Your task to perform on an android device: open a bookmark in the chrome app Image 0: 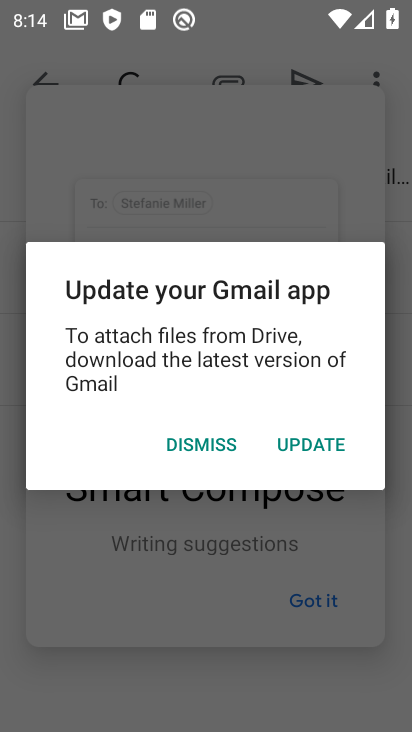
Step 0: press home button
Your task to perform on an android device: open a bookmark in the chrome app Image 1: 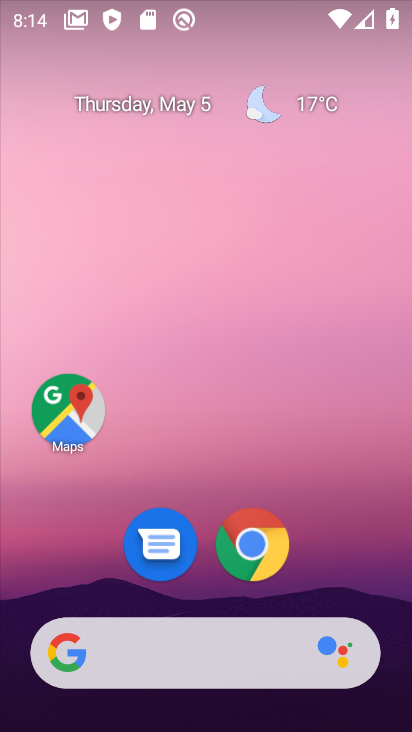
Step 1: click (273, 544)
Your task to perform on an android device: open a bookmark in the chrome app Image 2: 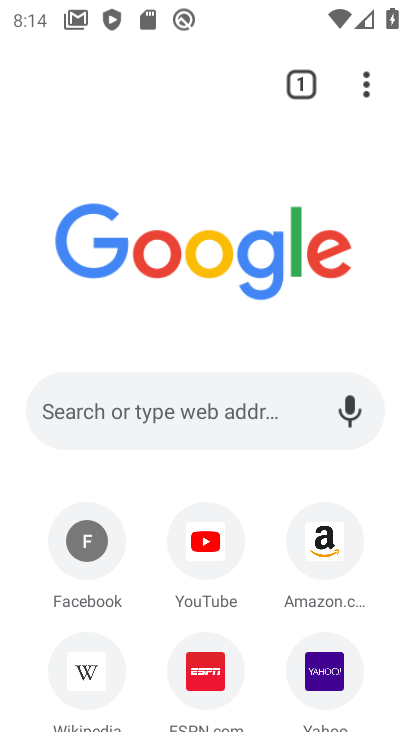
Step 2: click (359, 96)
Your task to perform on an android device: open a bookmark in the chrome app Image 3: 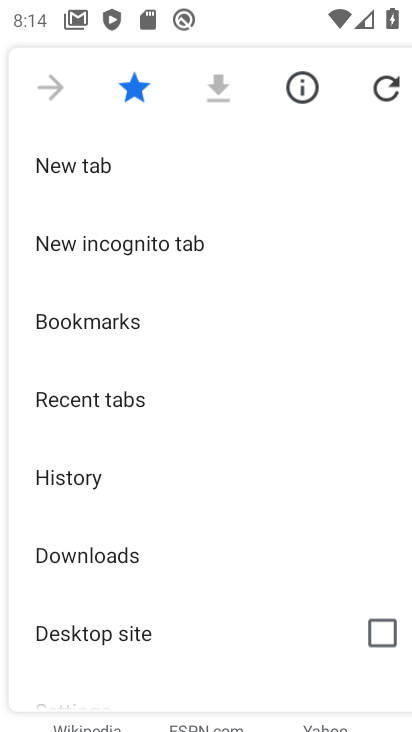
Step 3: click (207, 323)
Your task to perform on an android device: open a bookmark in the chrome app Image 4: 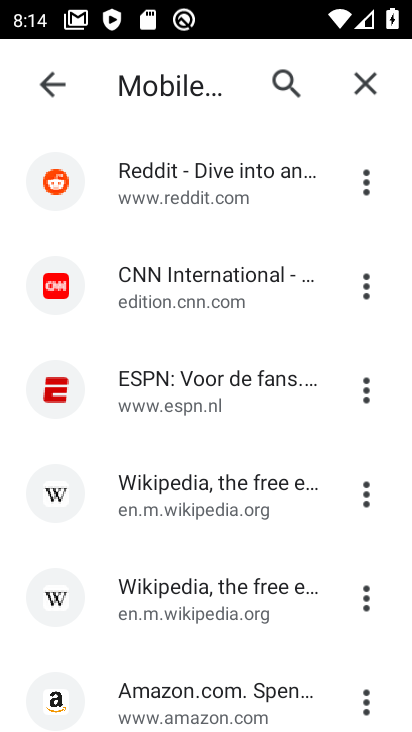
Step 4: click (144, 197)
Your task to perform on an android device: open a bookmark in the chrome app Image 5: 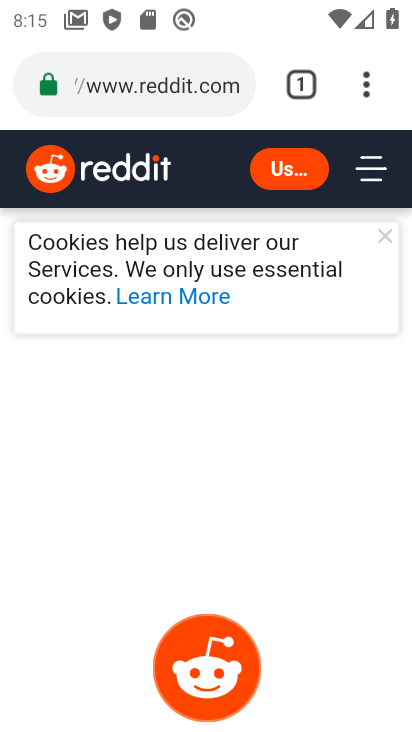
Step 5: task complete